Your task to perform on an android device: Go to network settings Image 0: 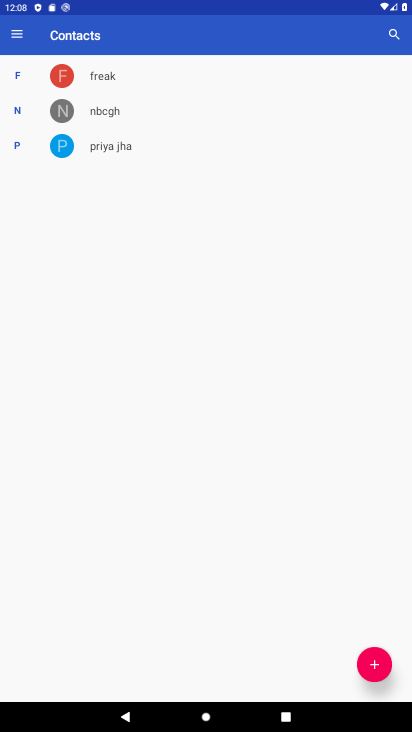
Step 0: press home button
Your task to perform on an android device: Go to network settings Image 1: 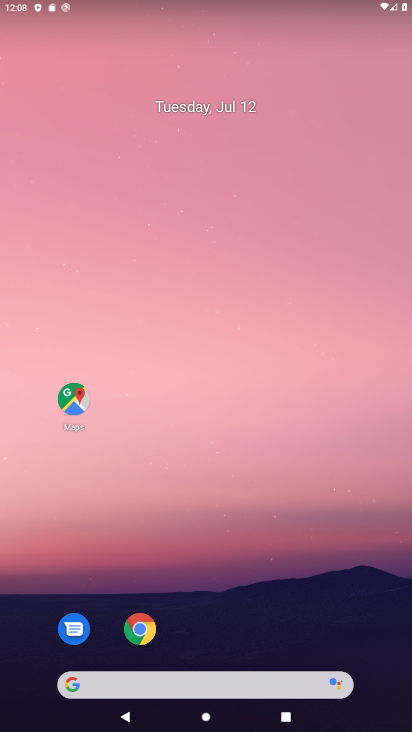
Step 1: drag from (240, 628) to (293, 153)
Your task to perform on an android device: Go to network settings Image 2: 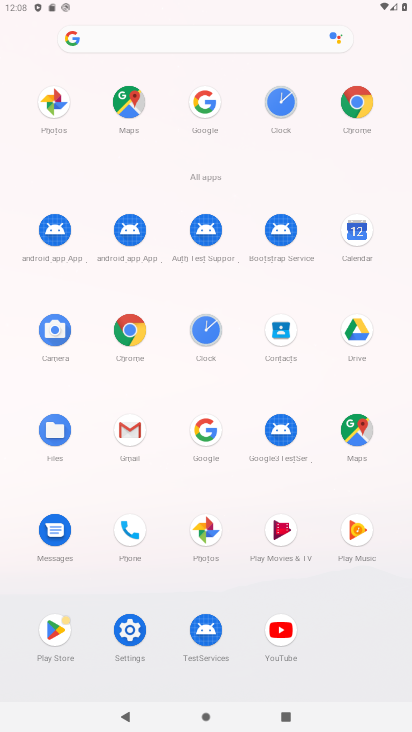
Step 2: click (140, 632)
Your task to perform on an android device: Go to network settings Image 3: 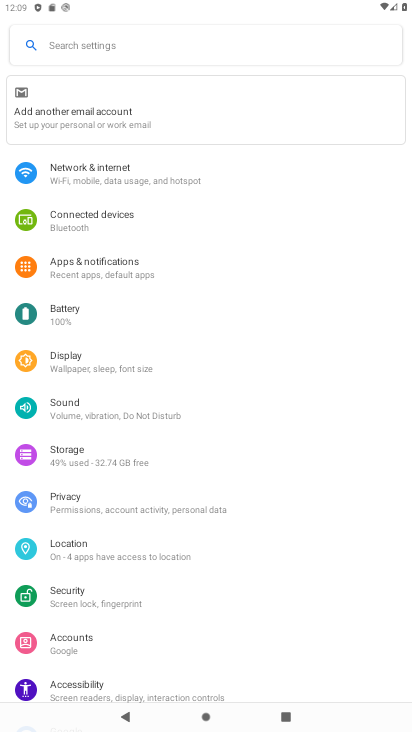
Step 3: click (102, 173)
Your task to perform on an android device: Go to network settings Image 4: 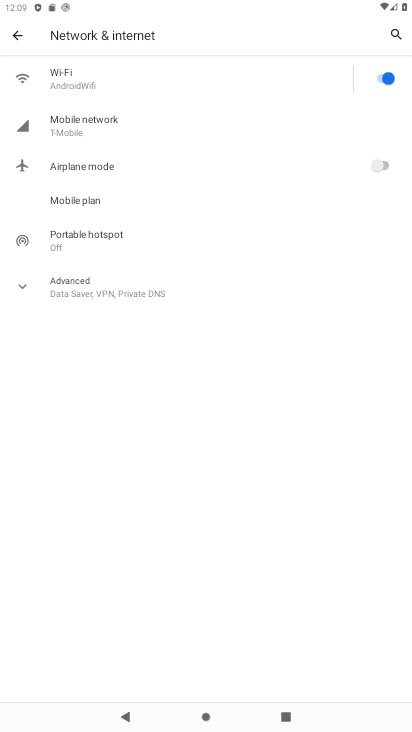
Step 4: task complete